Your task to perform on an android device: refresh tabs in the chrome app Image 0: 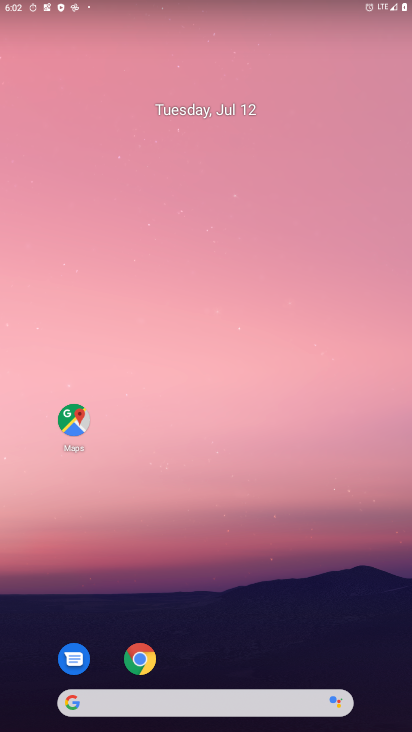
Step 0: click (146, 663)
Your task to perform on an android device: refresh tabs in the chrome app Image 1: 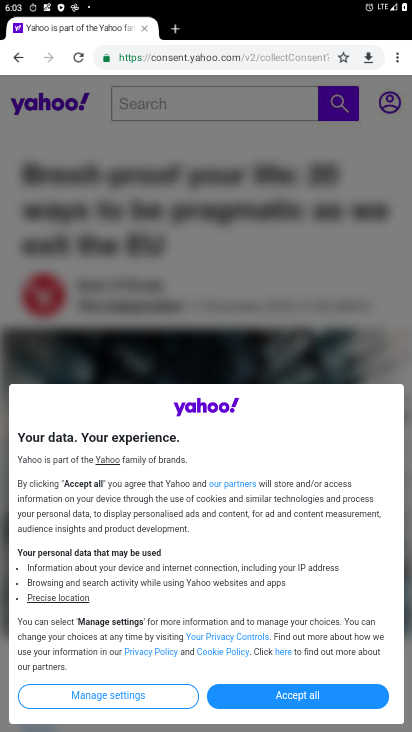
Step 1: click (71, 59)
Your task to perform on an android device: refresh tabs in the chrome app Image 2: 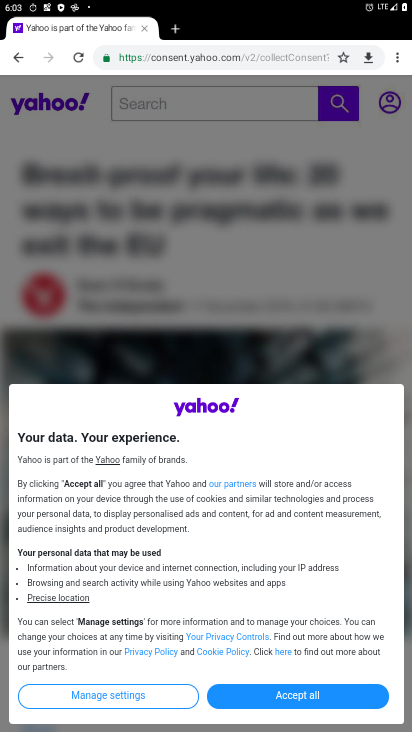
Step 2: task complete